Your task to perform on an android device: Open Reddit.com Image 0: 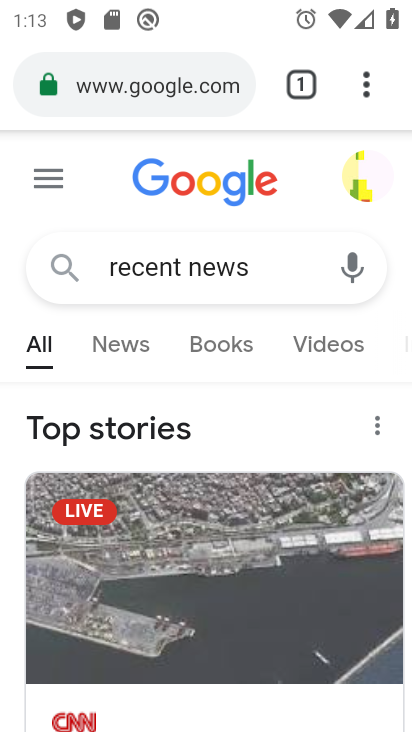
Step 0: press home button
Your task to perform on an android device: Open Reddit.com Image 1: 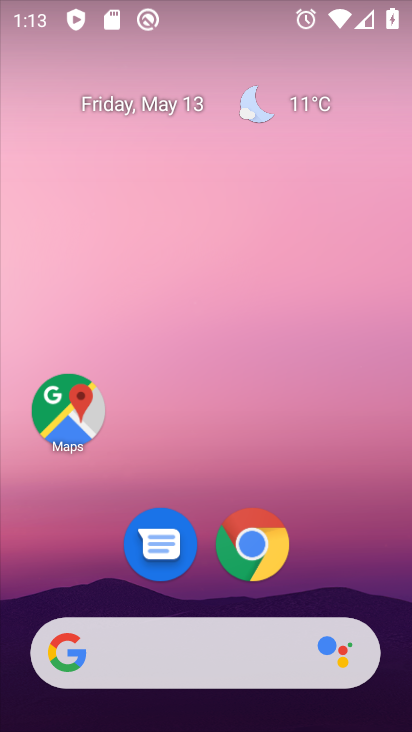
Step 1: click (245, 536)
Your task to perform on an android device: Open Reddit.com Image 2: 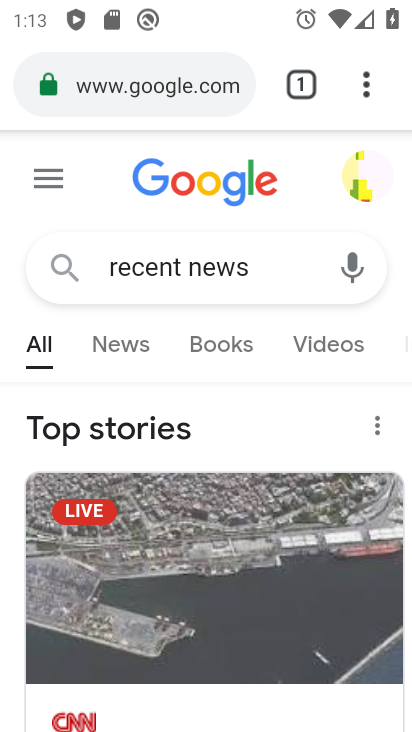
Step 2: click (130, 82)
Your task to perform on an android device: Open Reddit.com Image 3: 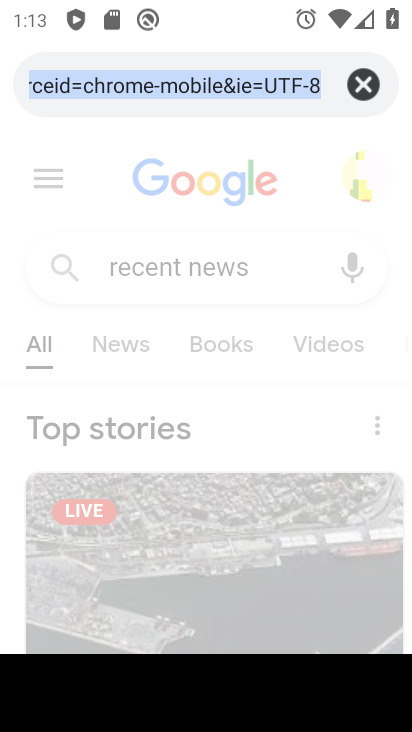
Step 3: type "Reddit.com"
Your task to perform on an android device: Open Reddit.com Image 4: 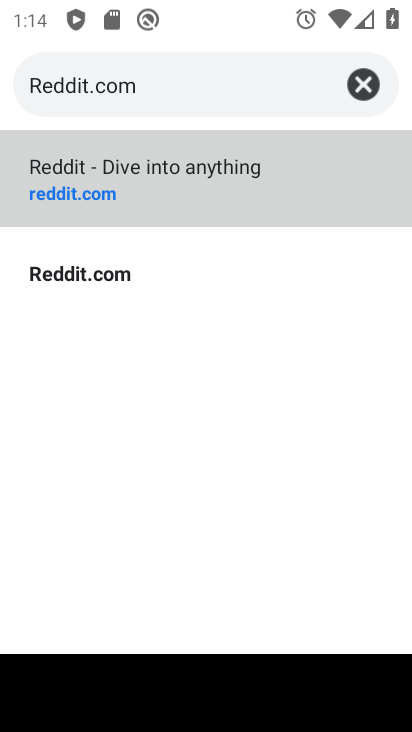
Step 4: click (50, 286)
Your task to perform on an android device: Open Reddit.com Image 5: 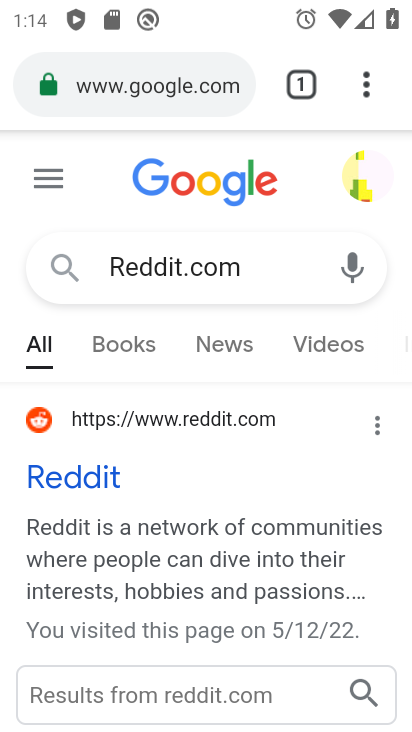
Step 5: task complete